Your task to perform on an android device: Open Reddit.com Image 0: 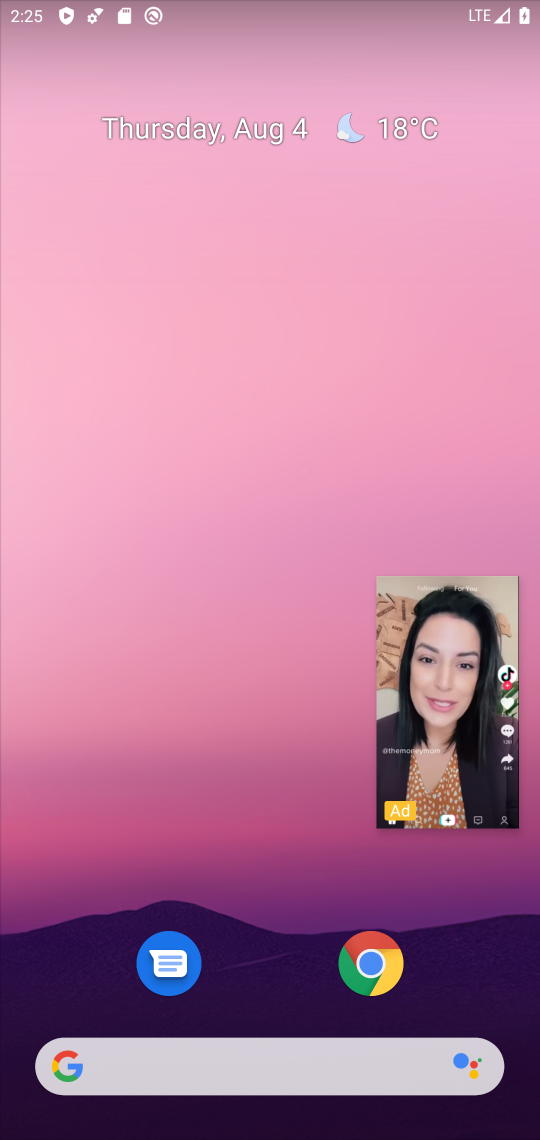
Step 0: drag from (452, 678) to (179, 1136)
Your task to perform on an android device: Open Reddit.com Image 1: 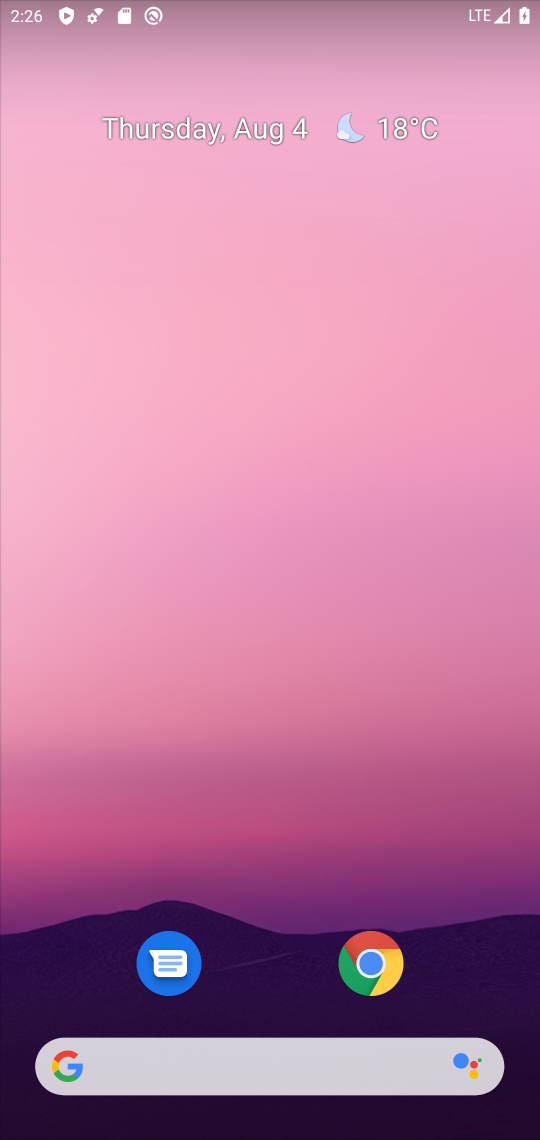
Step 1: drag from (257, 1058) to (204, 205)
Your task to perform on an android device: Open Reddit.com Image 2: 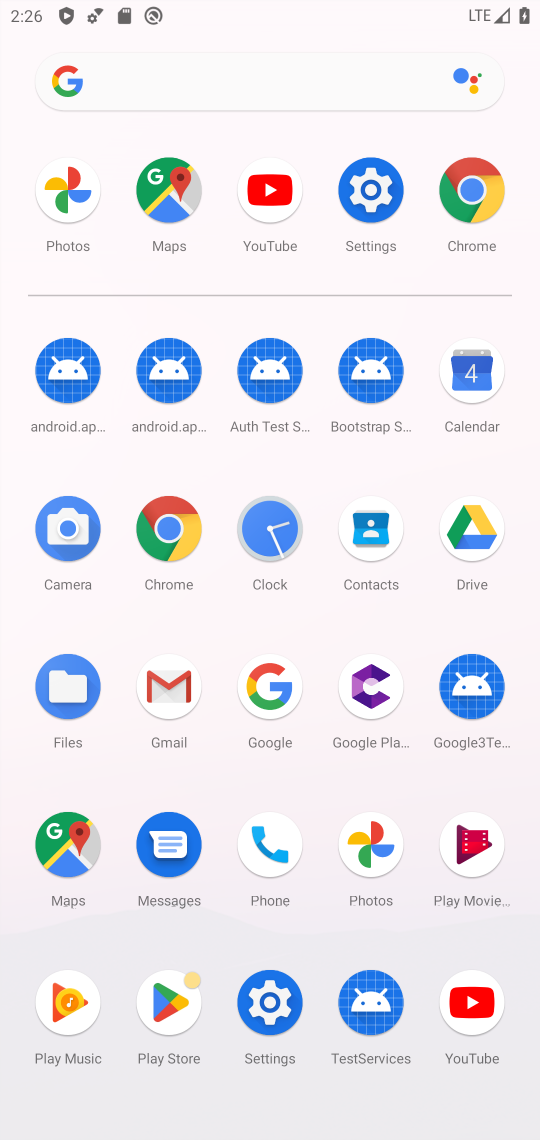
Step 2: click (472, 185)
Your task to perform on an android device: Open Reddit.com Image 3: 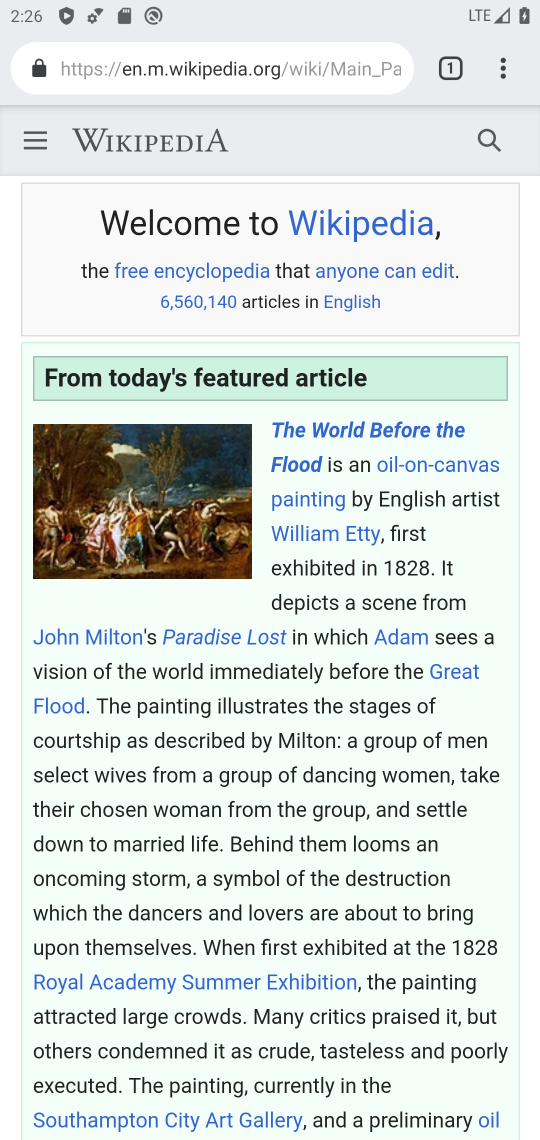
Step 3: click (237, 87)
Your task to perform on an android device: Open Reddit.com Image 4: 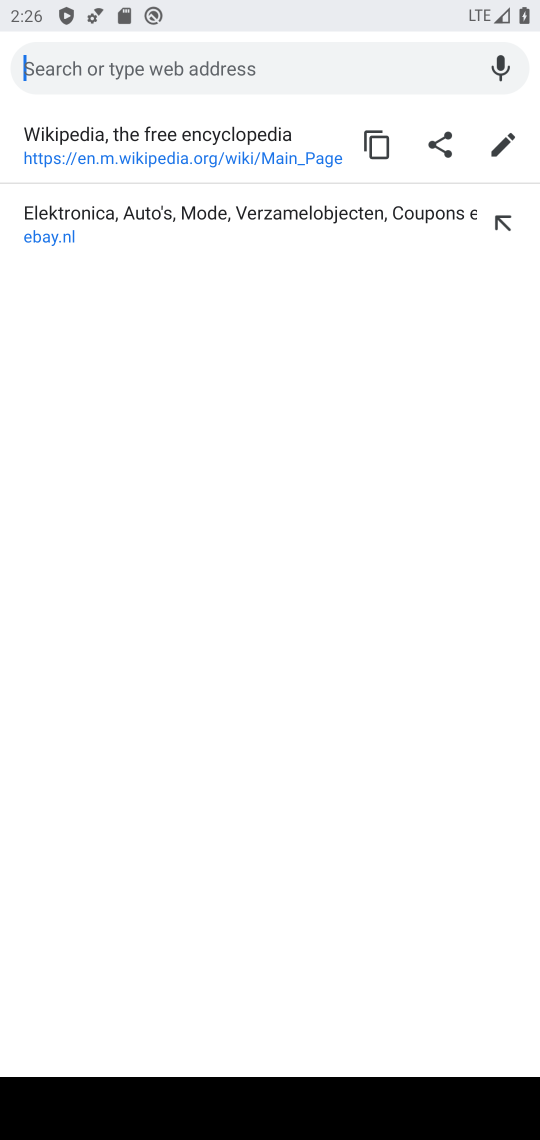
Step 4: type "reddit.com"
Your task to perform on an android device: Open Reddit.com Image 5: 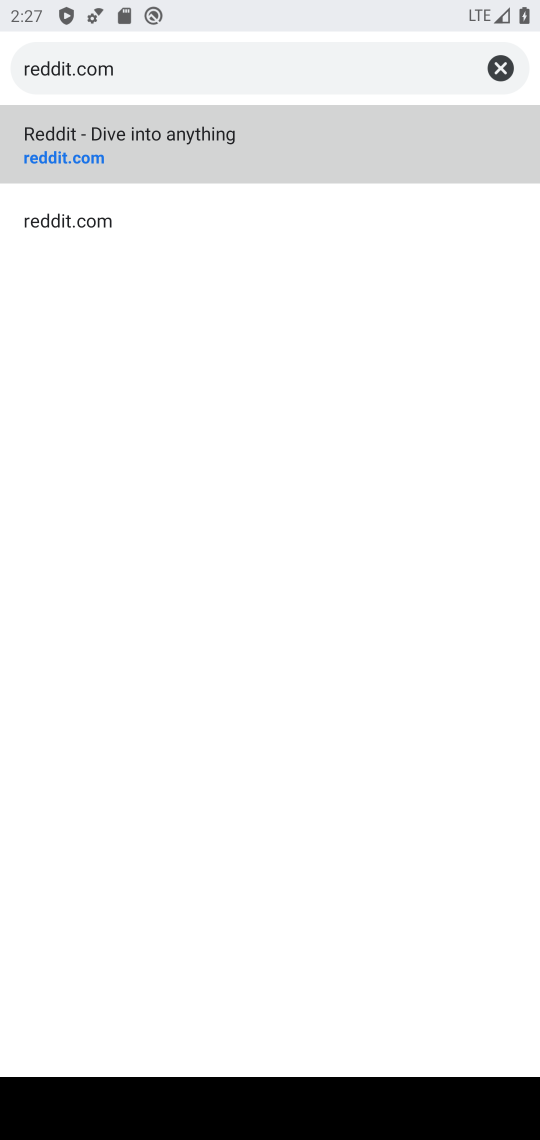
Step 5: click (80, 147)
Your task to perform on an android device: Open Reddit.com Image 6: 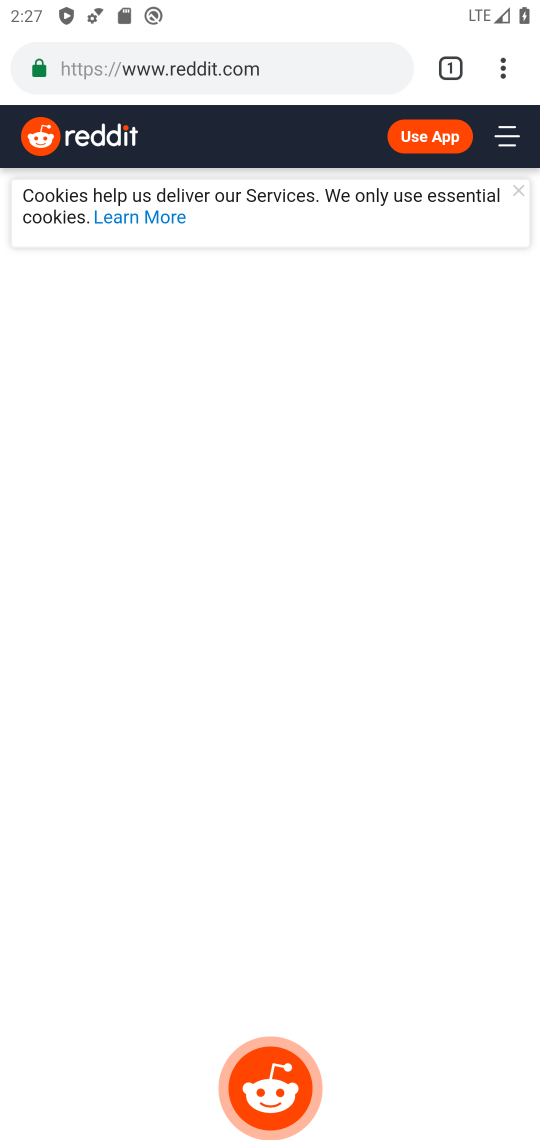
Step 6: task complete